Your task to perform on an android device: toggle show notifications on the lock screen Image 0: 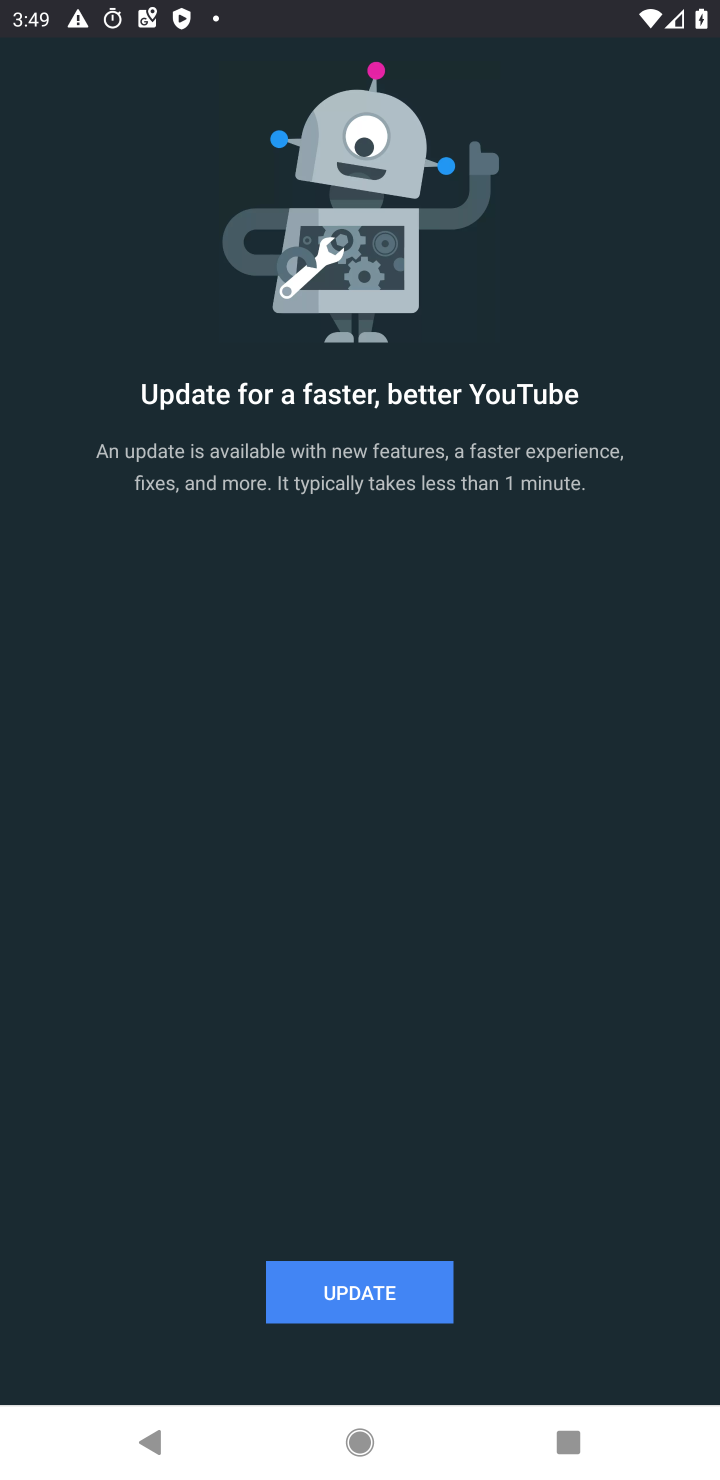
Step 0: press home button
Your task to perform on an android device: toggle show notifications on the lock screen Image 1: 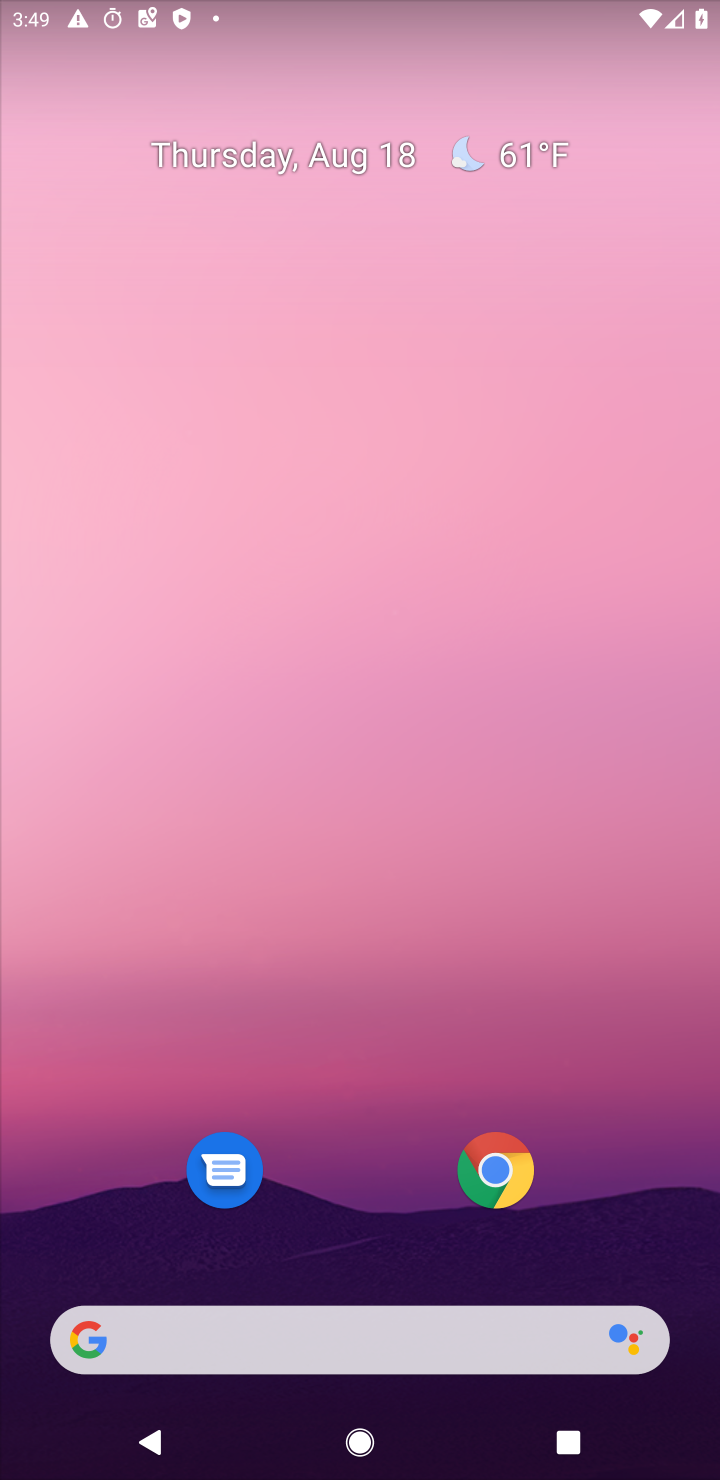
Step 1: drag from (77, 1451) to (362, 520)
Your task to perform on an android device: toggle show notifications on the lock screen Image 2: 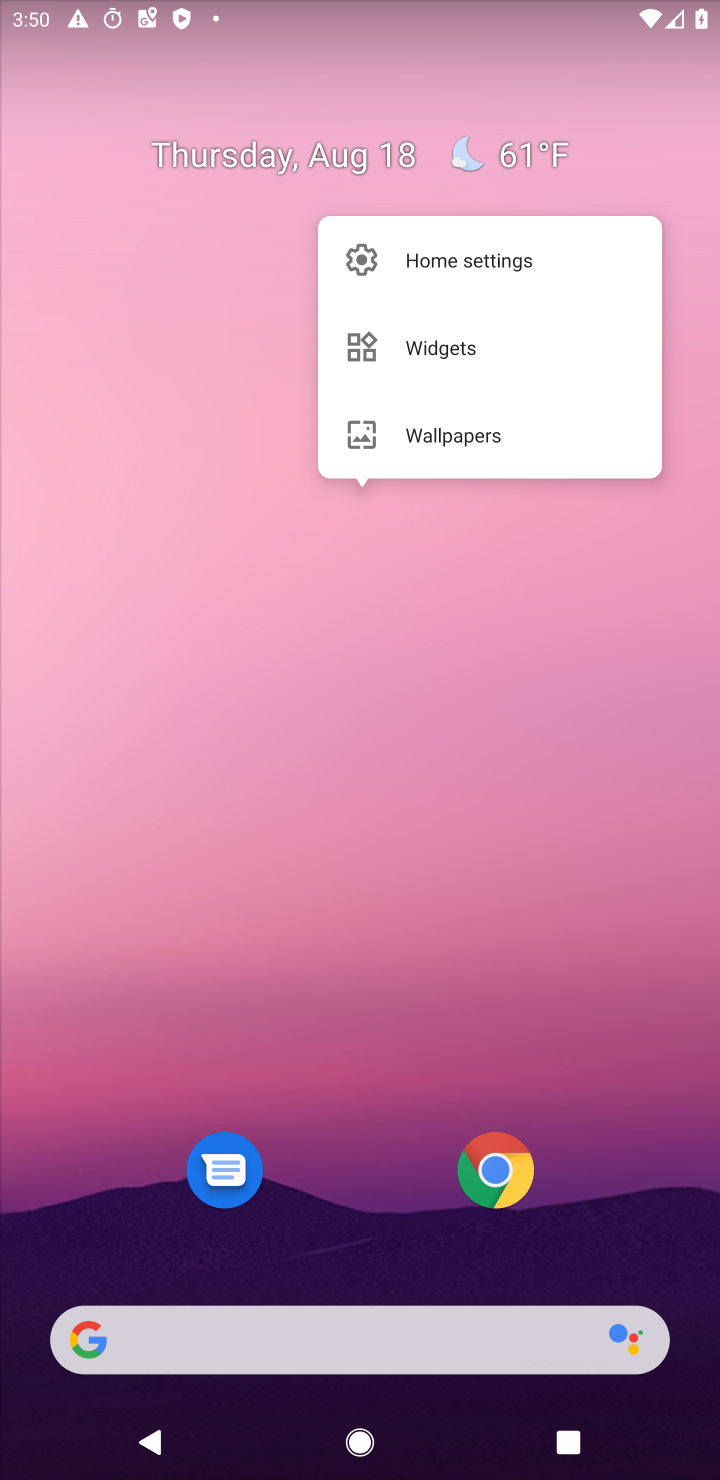
Step 2: drag from (79, 1402) to (104, 183)
Your task to perform on an android device: toggle show notifications on the lock screen Image 3: 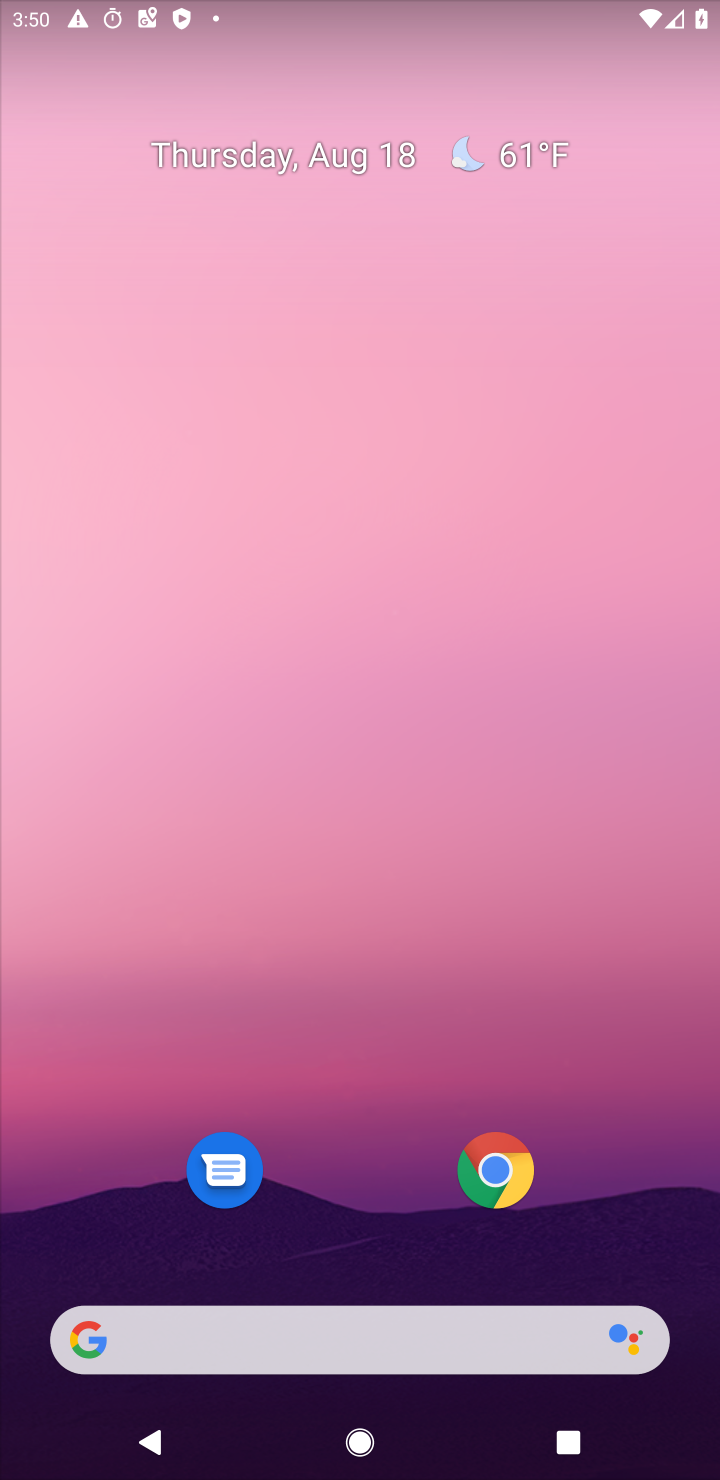
Step 3: drag from (106, 1369) to (259, 730)
Your task to perform on an android device: toggle show notifications on the lock screen Image 4: 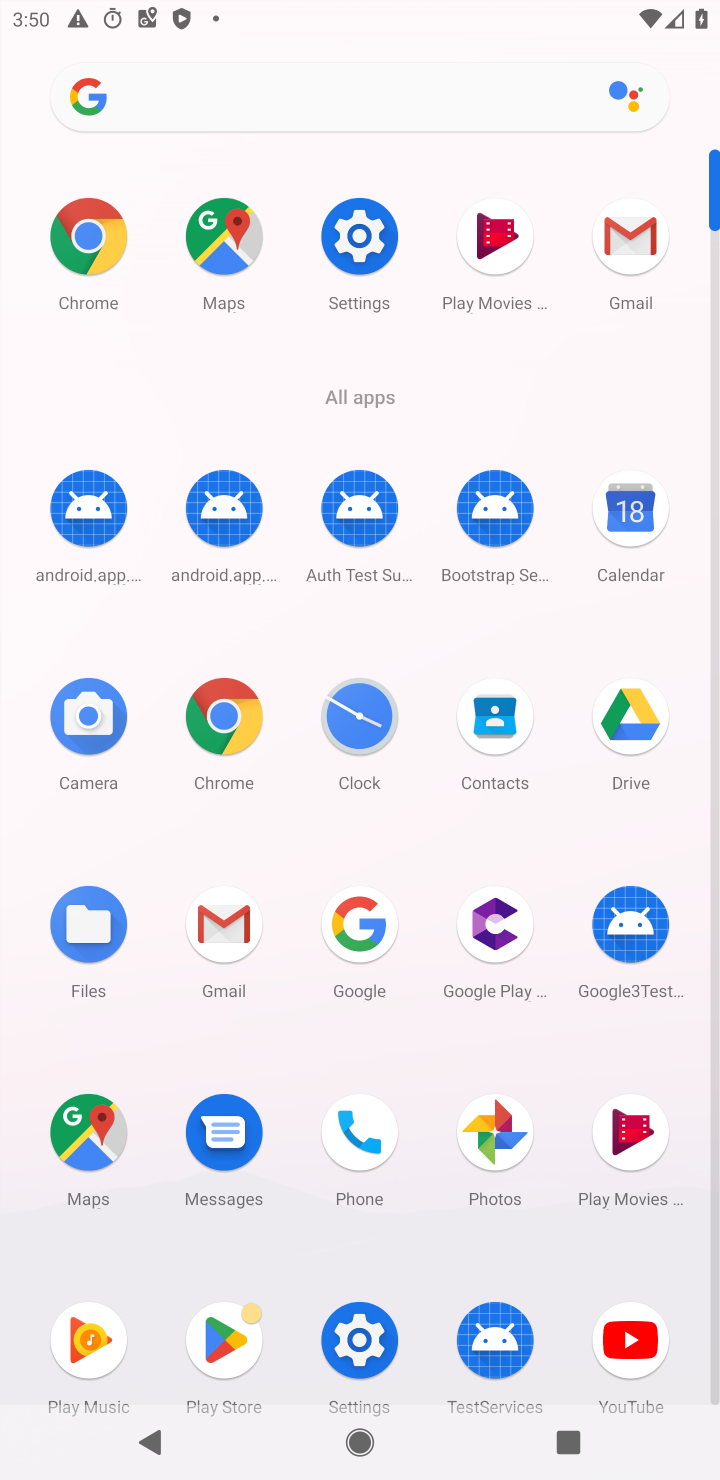
Step 4: click (354, 1350)
Your task to perform on an android device: toggle show notifications on the lock screen Image 5: 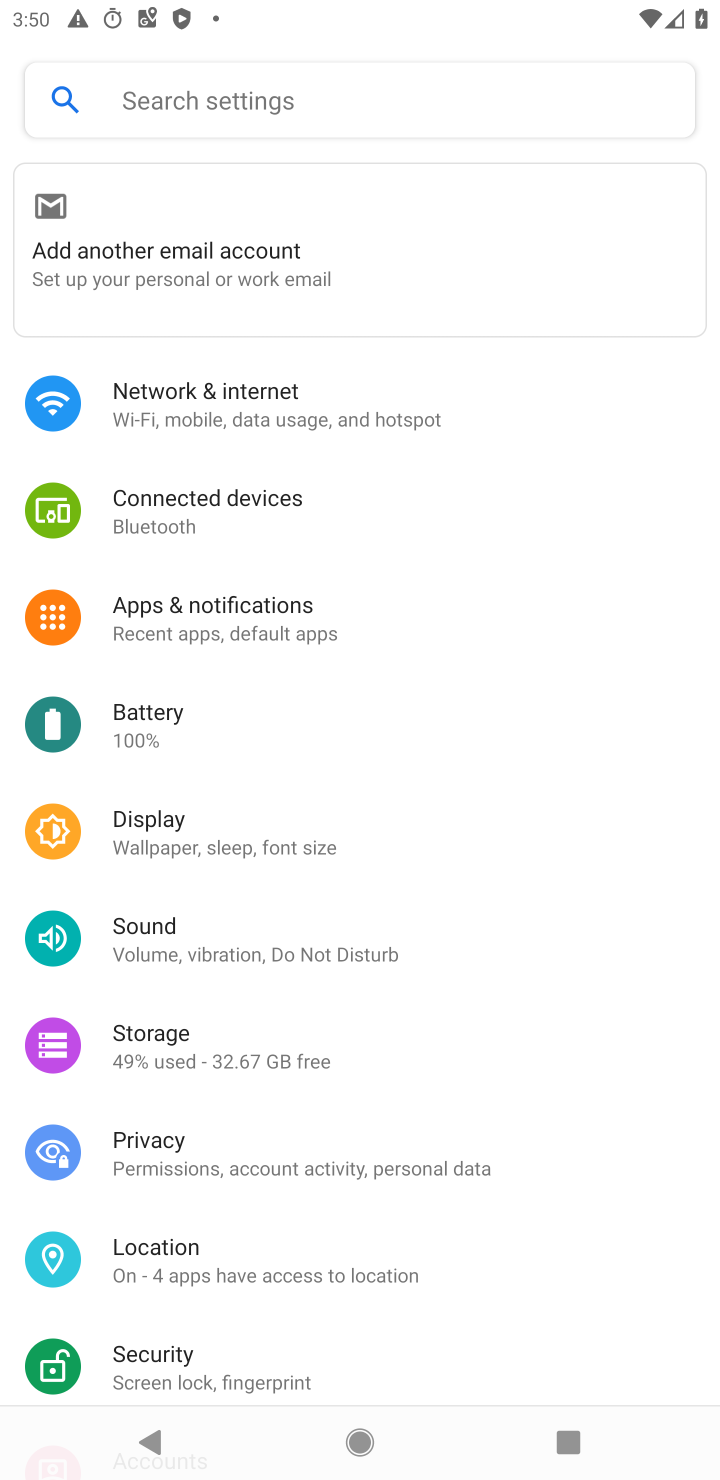
Step 5: click (252, 624)
Your task to perform on an android device: toggle show notifications on the lock screen Image 6: 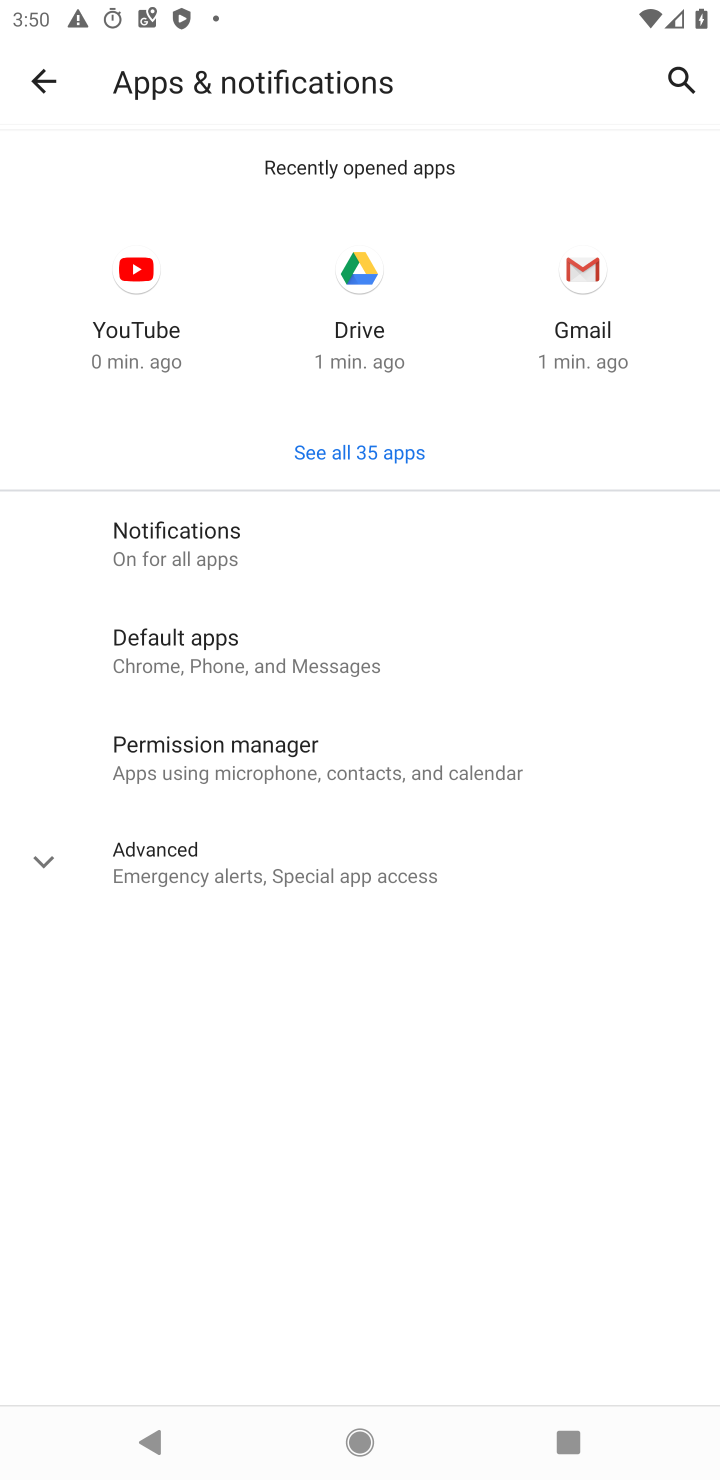
Step 6: click (213, 525)
Your task to perform on an android device: toggle show notifications on the lock screen Image 7: 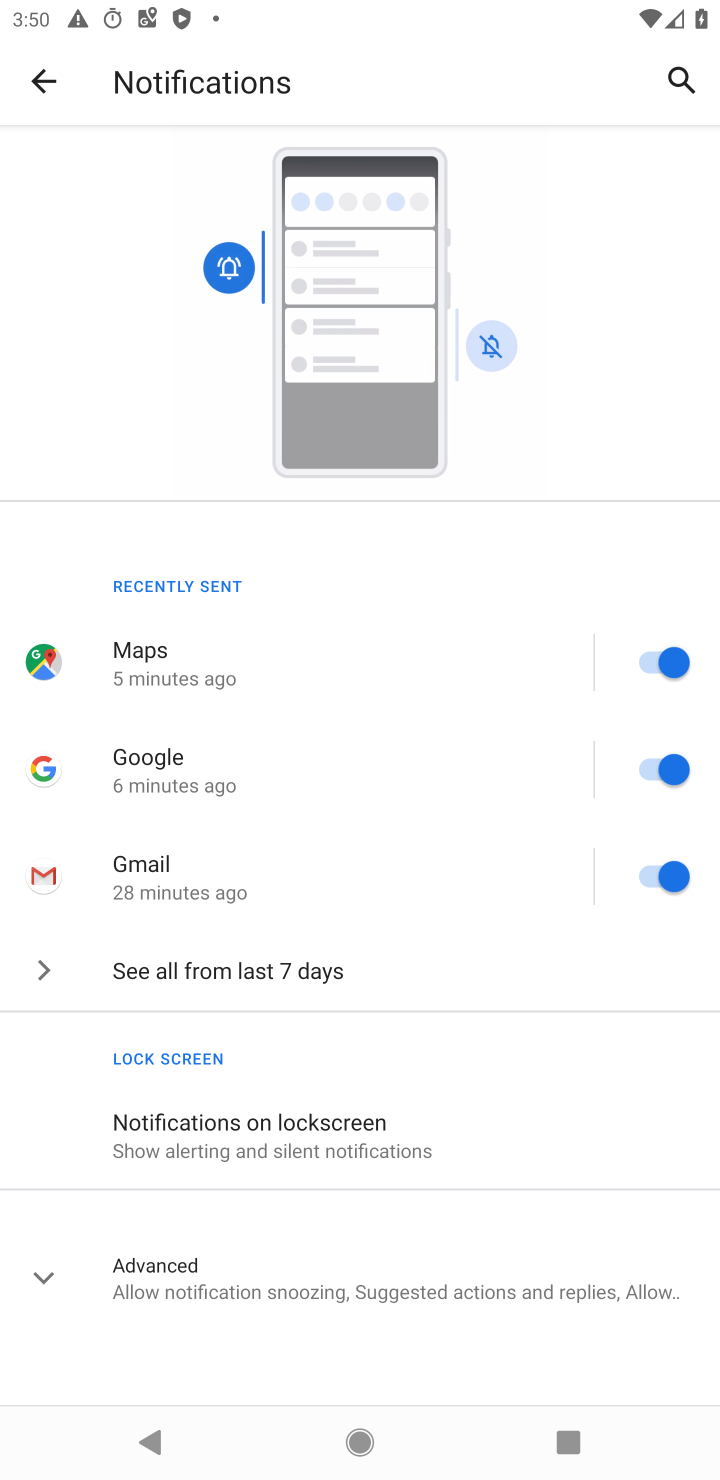
Step 7: click (265, 1139)
Your task to perform on an android device: toggle show notifications on the lock screen Image 8: 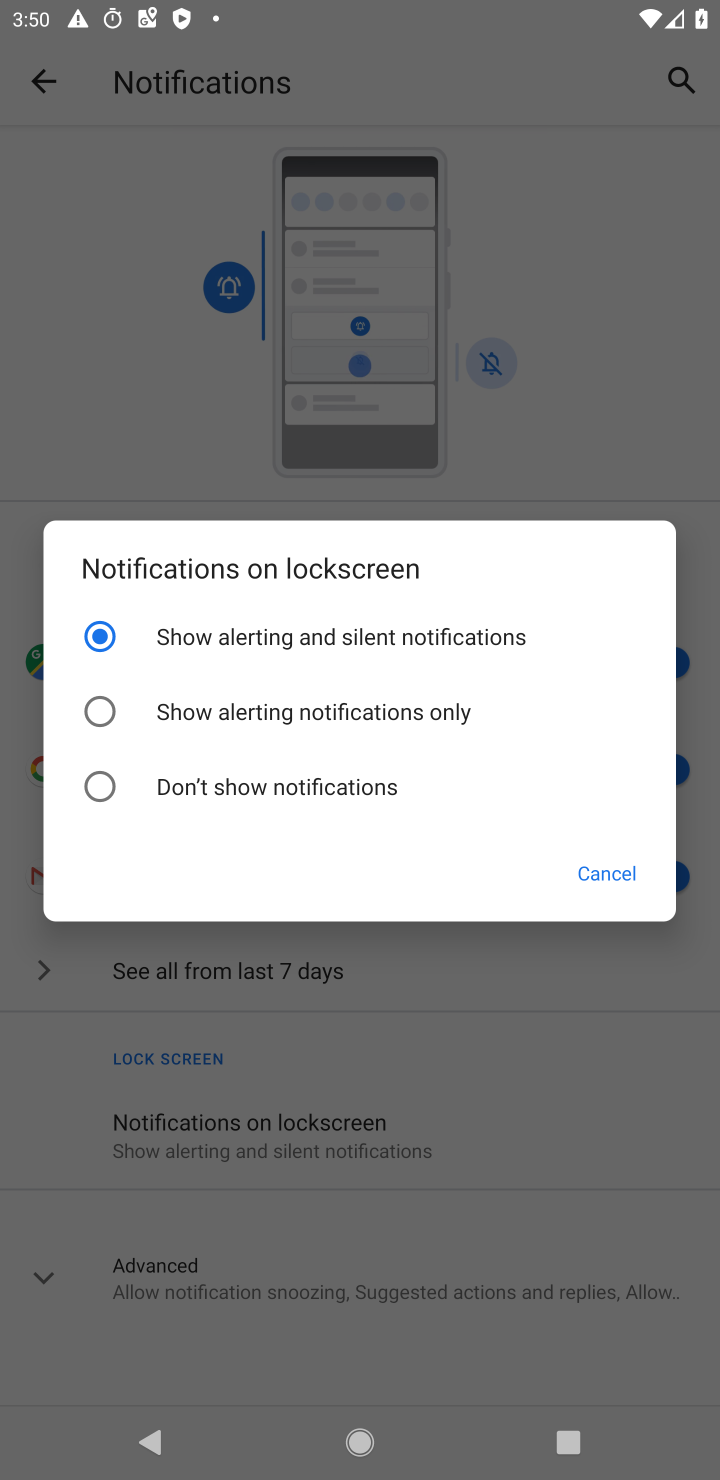
Step 8: task complete